Your task to perform on an android device: Do I have any events today? Image 0: 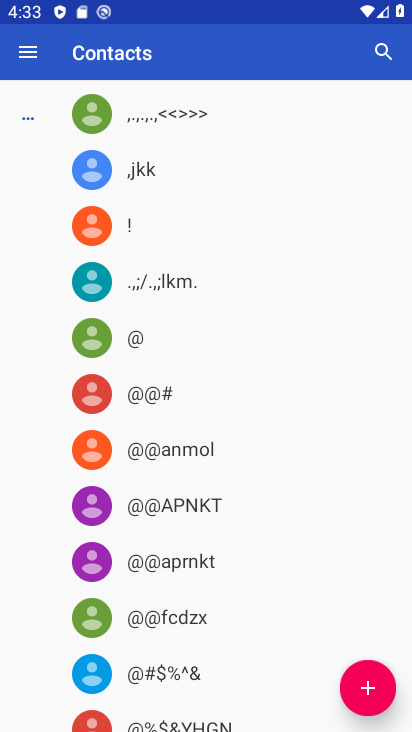
Step 0: press home button
Your task to perform on an android device: Do I have any events today? Image 1: 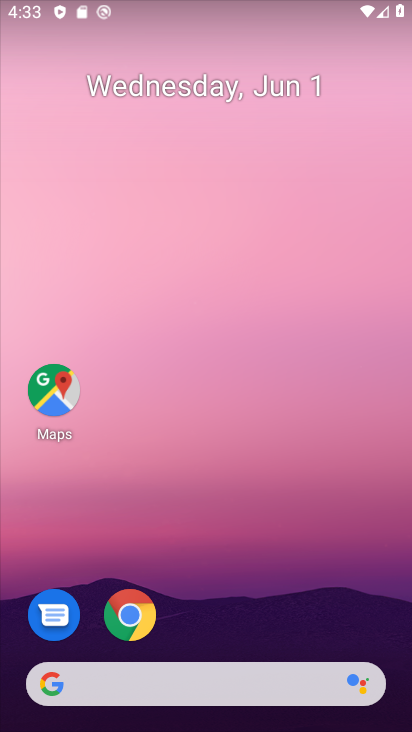
Step 1: drag from (197, 631) to (350, 133)
Your task to perform on an android device: Do I have any events today? Image 2: 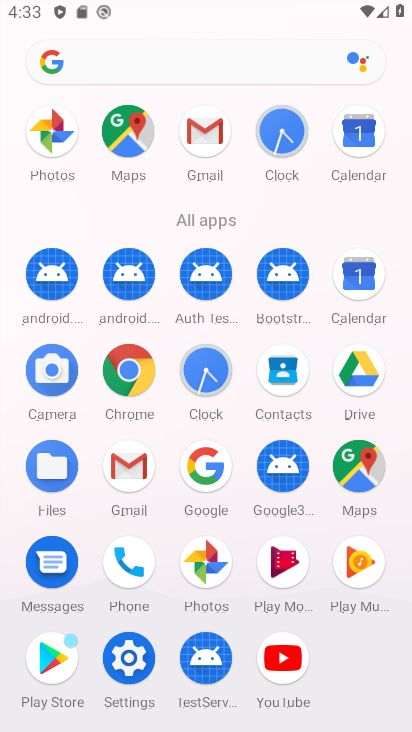
Step 2: click (363, 269)
Your task to perform on an android device: Do I have any events today? Image 3: 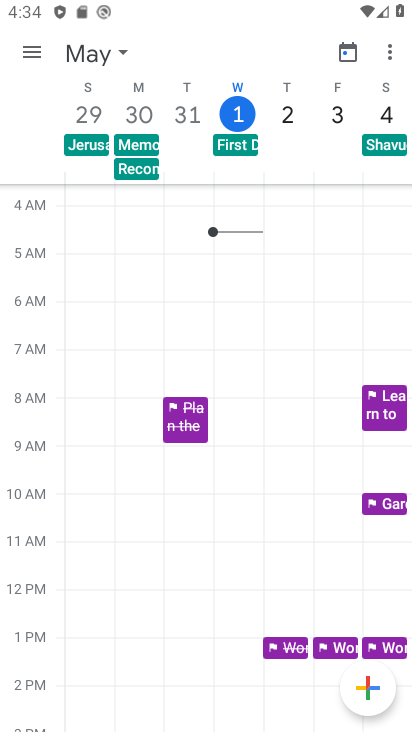
Step 3: click (238, 114)
Your task to perform on an android device: Do I have any events today? Image 4: 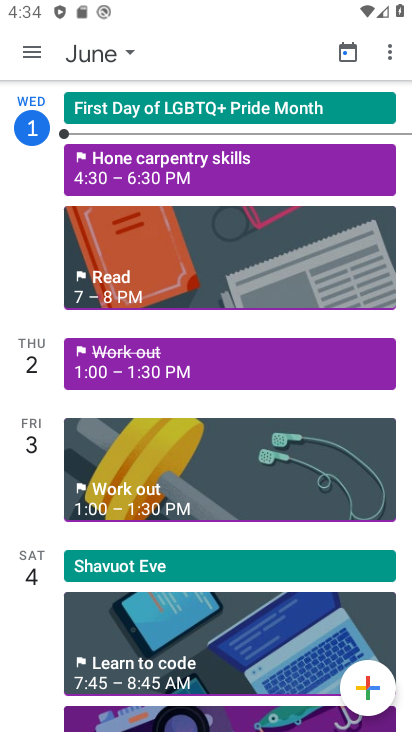
Step 4: task complete